Your task to perform on an android device: Open calendar and show me the first week of next month Image 0: 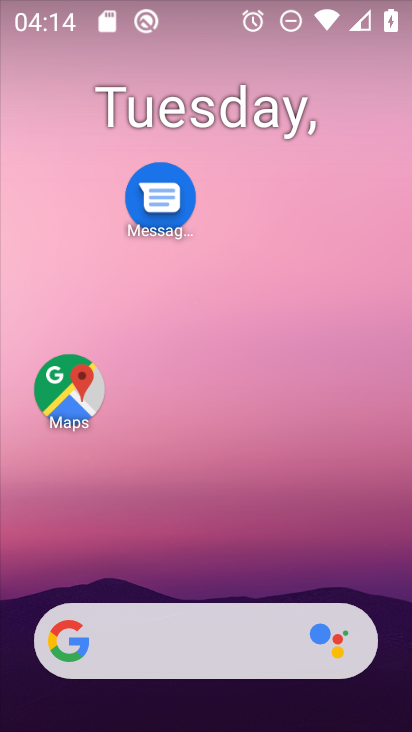
Step 0: drag from (205, 570) to (213, 228)
Your task to perform on an android device: Open calendar and show me the first week of next month Image 1: 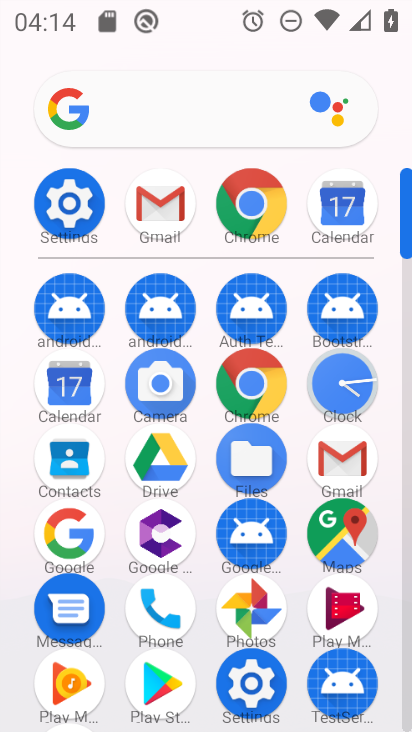
Step 1: click (324, 207)
Your task to perform on an android device: Open calendar and show me the first week of next month Image 2: 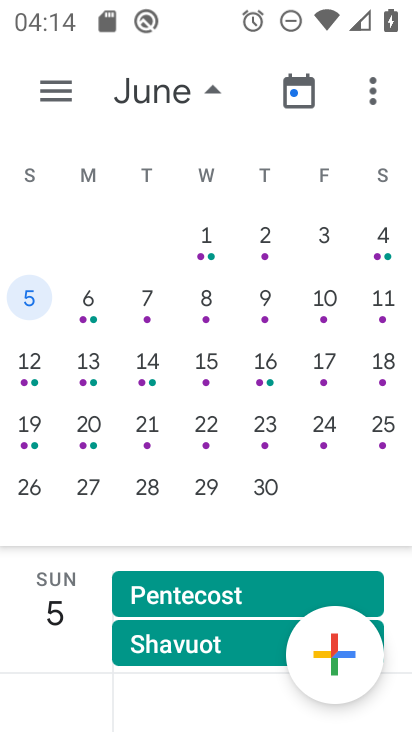
Step 2: click (198, 234)
Your task to perform on an android device: Open calendar and show me the first week of next month Image 3: 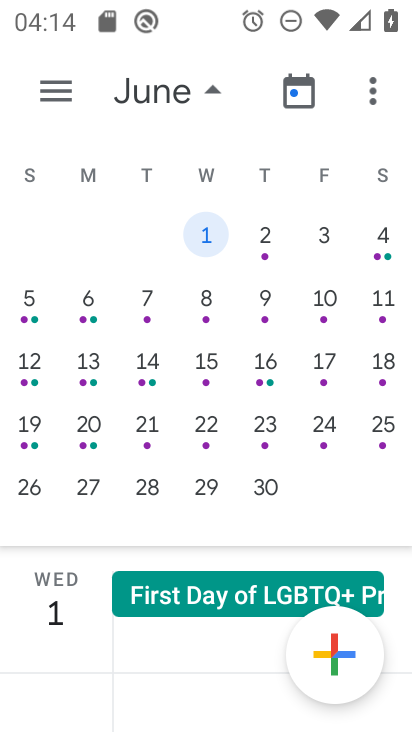
Step 3: task complete